Your task to perform on an android device: Go to Maps Image 0: 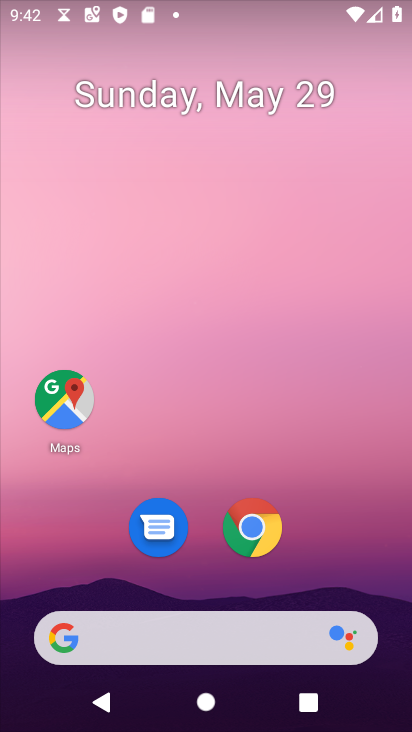
Step 0: click (65, 403)
Your task to perform on an android device: Go to Maps Image 1: 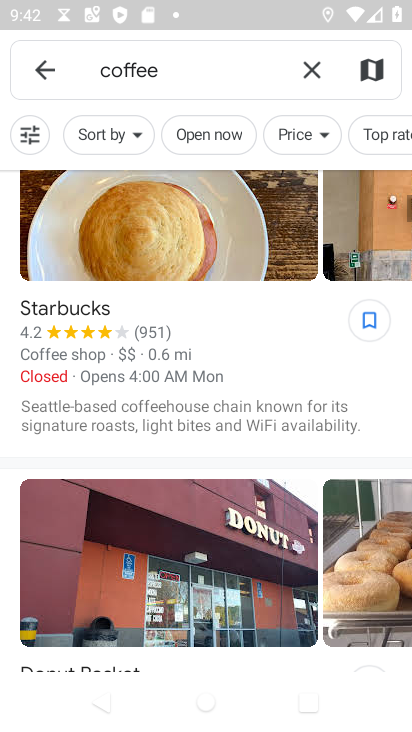
Step 1: click (308, 74)
Your task to perform on an android device: Go to Maps Image 2: 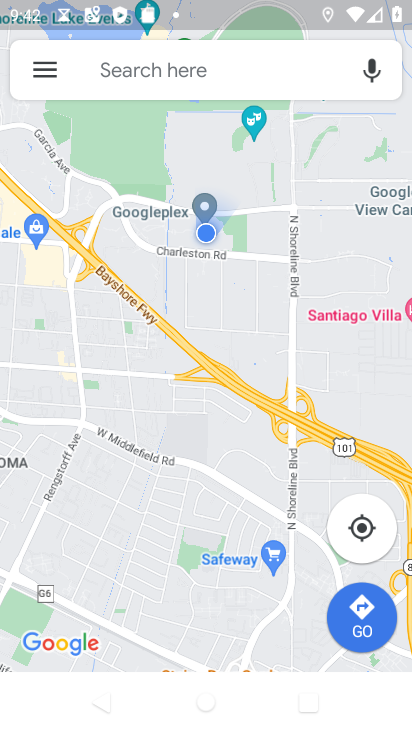
Step 2: task complete